Your task to perform on an android device: see creations saved in the google photos Image 0: 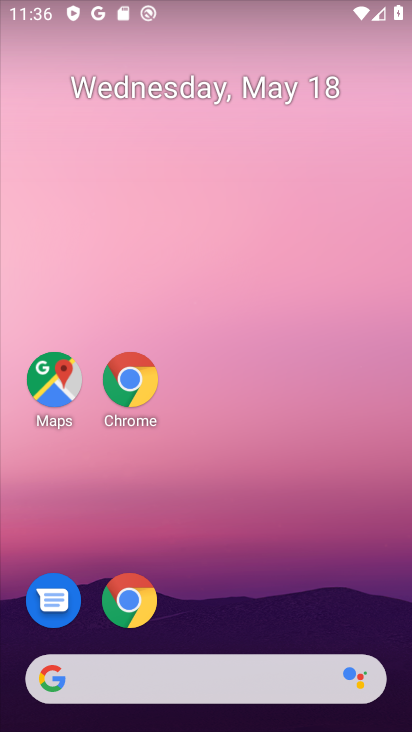
Step 0: drag from (324, 607) to (146, 115)
Your task to perform on an android device: see creations saved in the google photos Image 1: 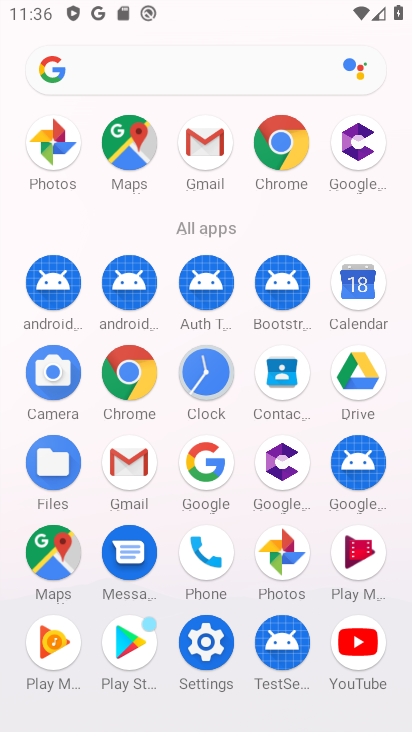
Step 1: click (284, 563)
Your task to perform on an android device: see creations saved in the google photos Image 2: 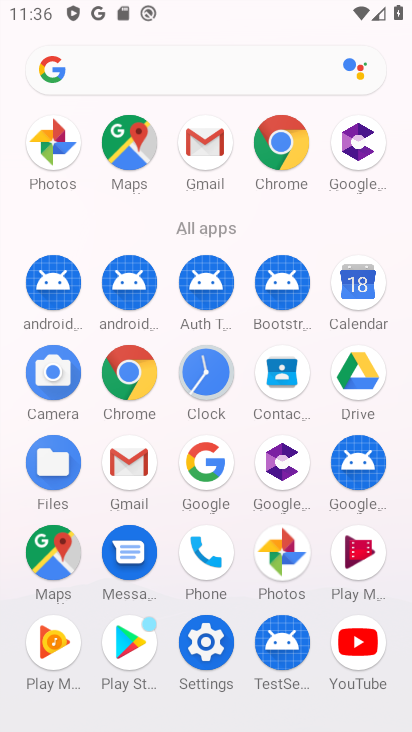
Step 2: click (284, 563)
Your task to perform on an android device: see creations saved in the google photos Image 3: 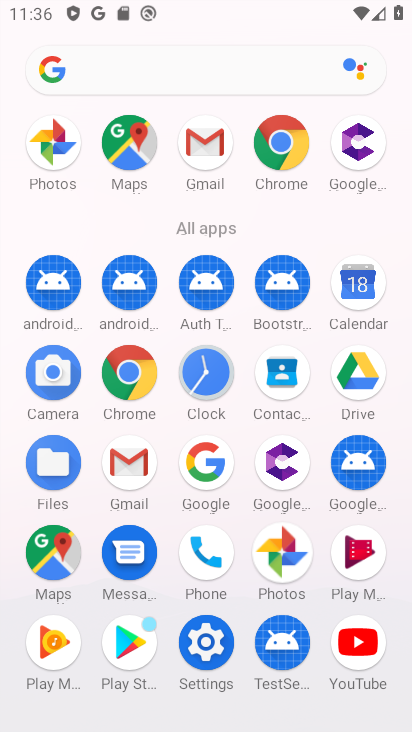
Step 3: click (285, 562)
Your task to perform on an android device: see creations saved in the google photos Image 4: 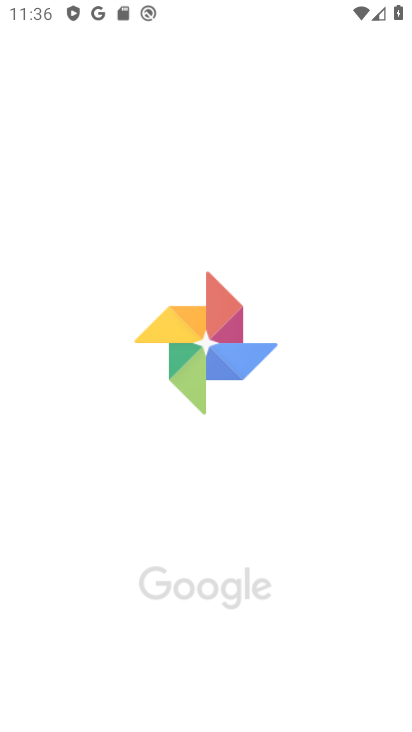
Step 4: click (284, 560)
Your task to perform on an android device: see creations saved in the google photos Image 5: 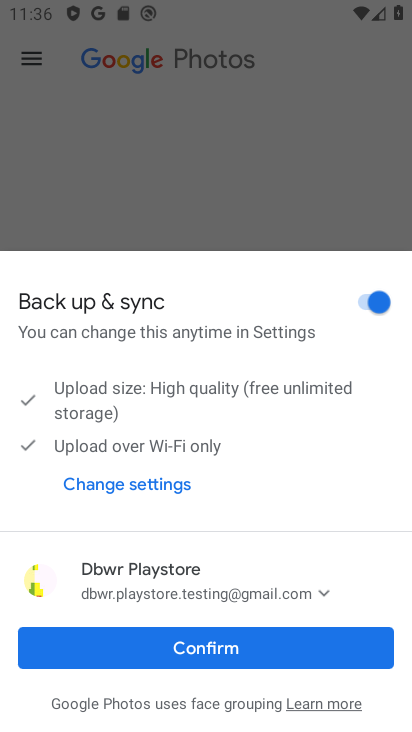
Step 5: click (215, 649)
Your task to perform on an android device: see creations saved in the google photos Image 6: 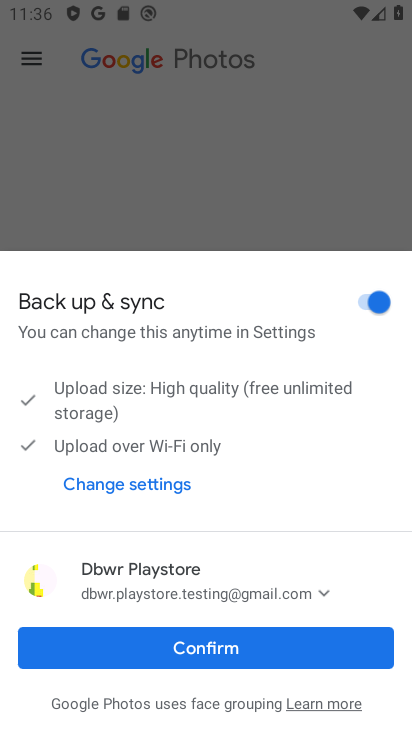
Step 6: click (215, 649)
Your task to perform on an android device: see creations saved in the google photos Image 7: 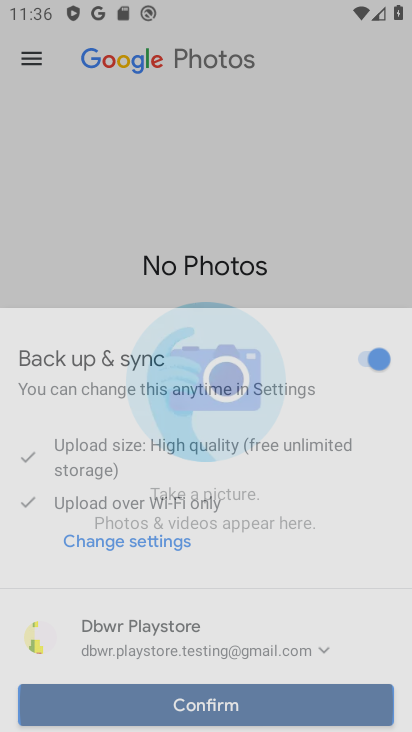
Step 7: click (218, 649)
Your task to perform on an android device: see creations saved in the google photos Image 8: 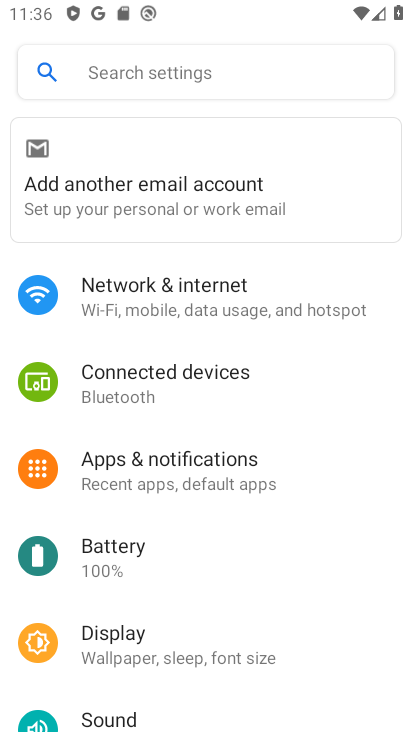
Step 8: drag from (177, 568) to (145, 367)
Your task to perform on an android device: see creations saved in the google photos Image 9: 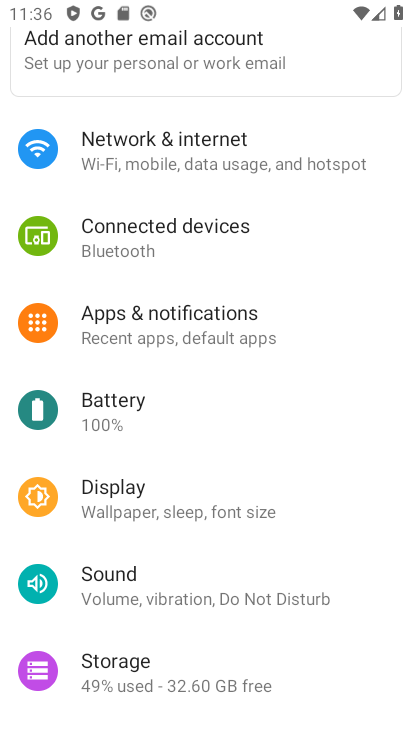
Step 9: drag from (187, 583) to (193, 275)
Your task to perform on an android device: see creations saved in the google photos Image 10: 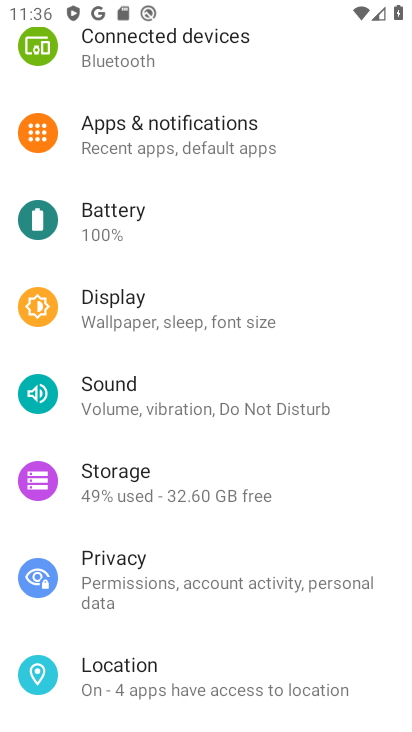
Step 10: press home button
Your task to perform on an android device: see creations saved in the google photos Image 11: 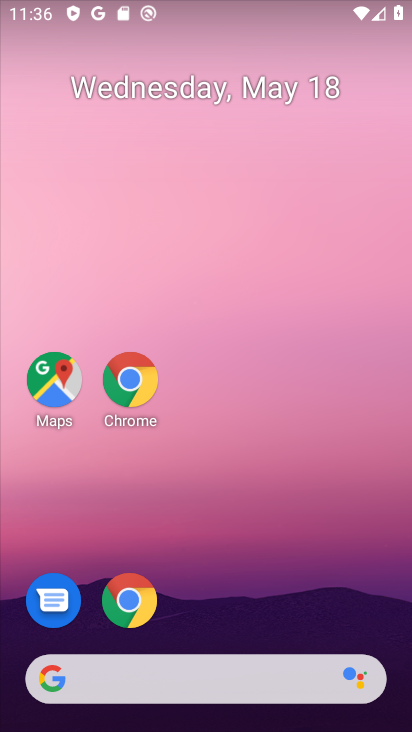
Step 11: drag from (267, 642) to (223, 133)
Your task to perform on an android device: see creations saved in the google photos Image 12: 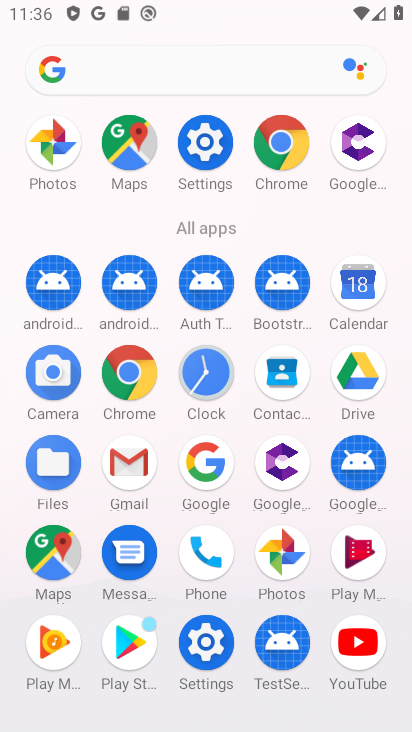
Step 12: click (282, 550)
Your task to perform on an android device: see creations saved in the google photos Image 13: 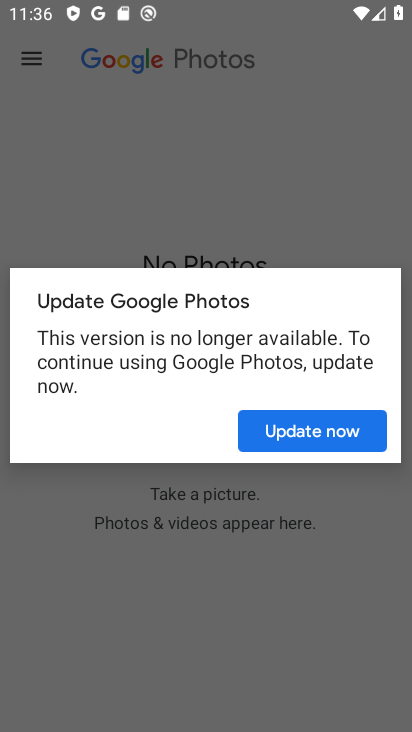
Step 13: click (319, 433)
Your task to perform on an android device: see creations saved in the google photos Image 14: 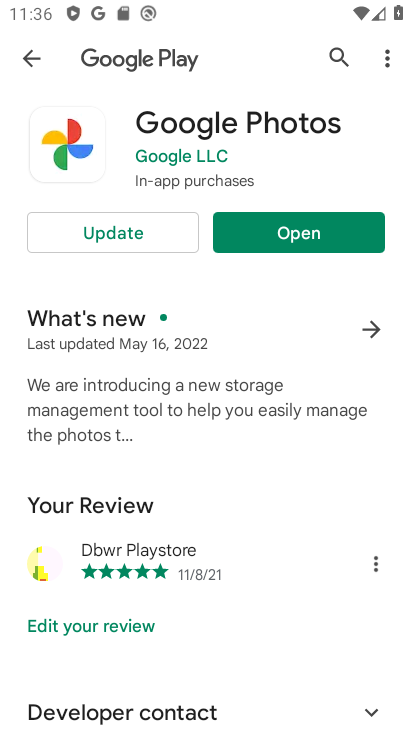
Step 14: click (122, 233)
Your task to perform on an android device: see creations saved in the google photos Image 15: 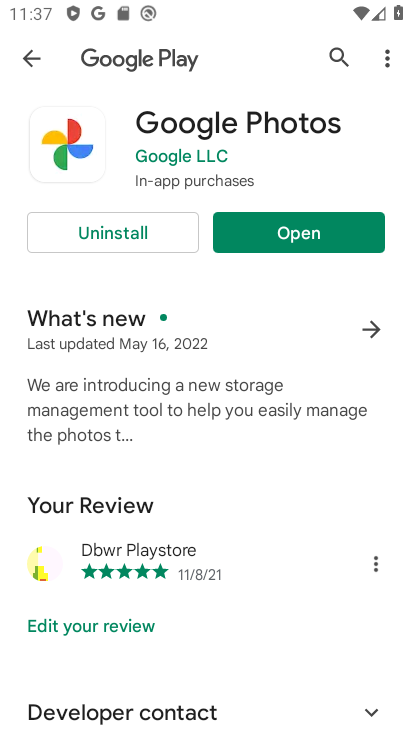
Step 15: click (298, 227)
Your task to perform on an android device: see creations saved in the google photos Image 16: 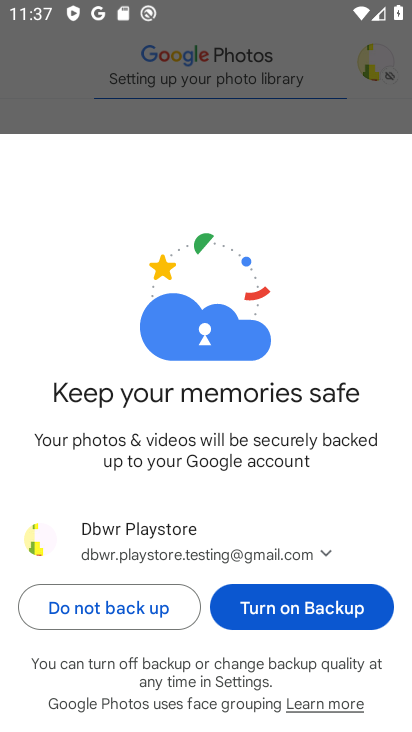
Step 16: click (297, 597)
Your task to perform on an android device: see creations saved in the google photos Image 17: 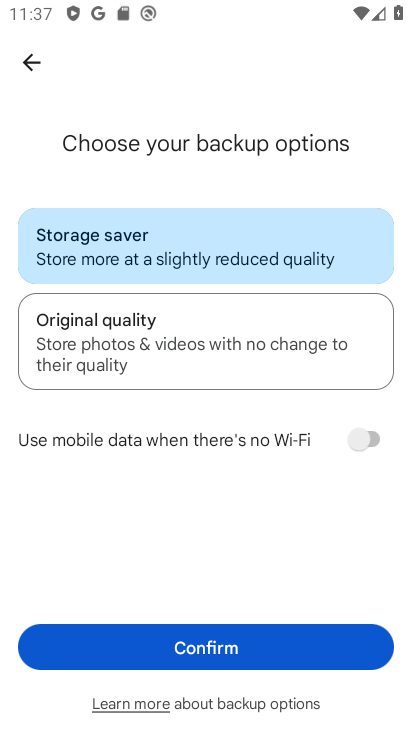
Step 17: click (236, 641)
Your task to perform on an android device: see creations saved in the google photos Image 18: 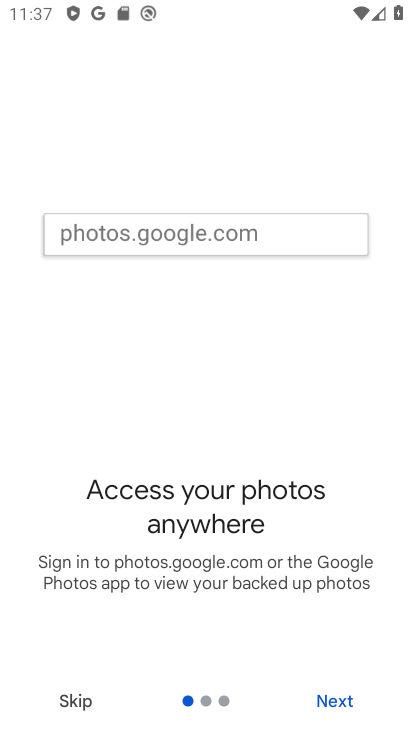
Step 18: click (335, 694)
Your task to perform on an android device: see creations saved in the google photos Image 19: 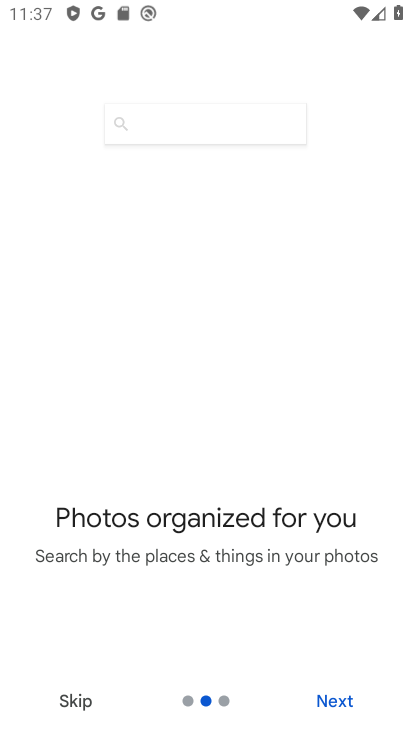
Step 19: click (336, 696)
Your task to perform on an android device: see creations saved in the google photos Image 20: 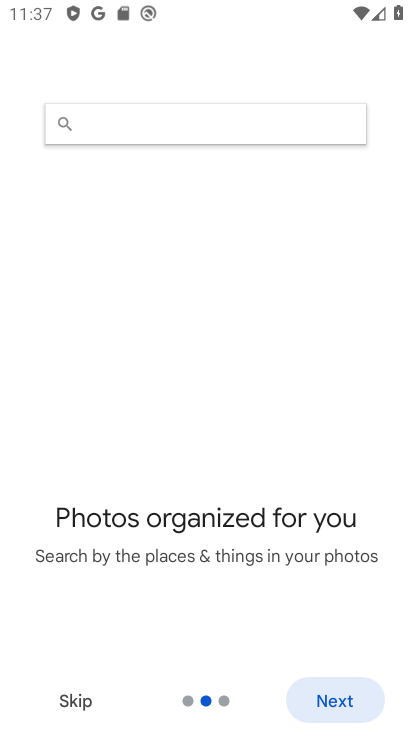
Step 20: click (337, 696)
Your task to perform on an android device: see creations saved in the google photos Image 21: 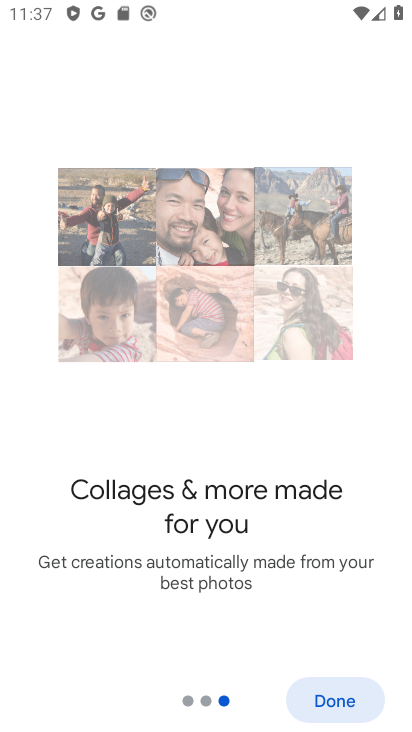
Step 21: click (335, 695)
Your task to perform on an android device: see creations saved in the google photos Image 22: 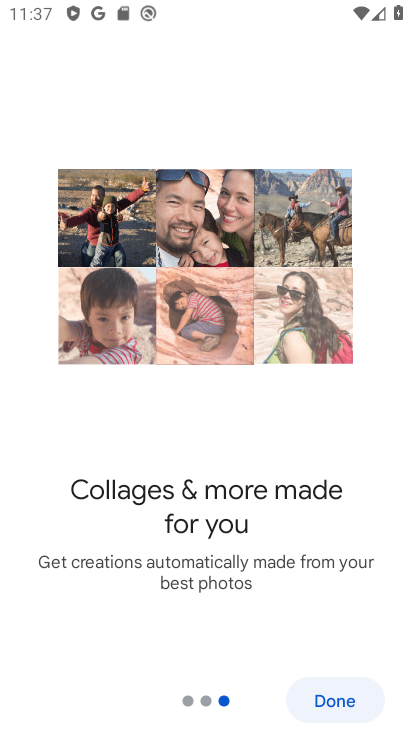
Step 22: click (335, 695)
Your task to perform on an android device: see creations saved in the google photos Image 23: 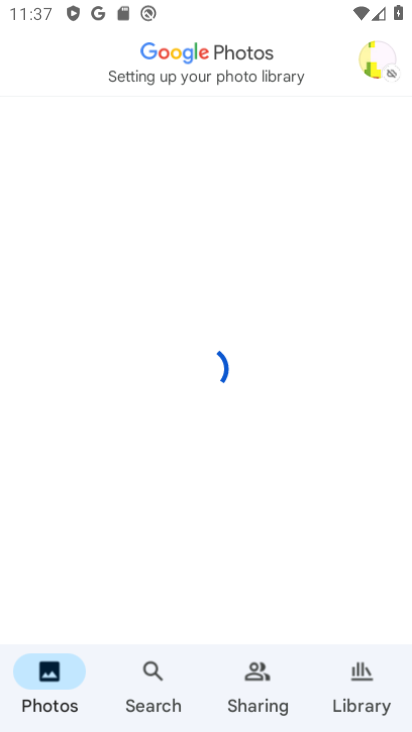
Step 23: click (335, 695)
Your task to perform on an android device: see creations saved in the google photos Image 24: 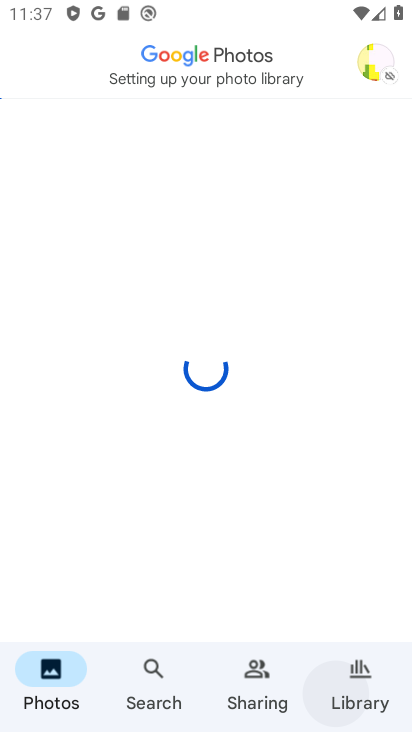
Step 24: click (335, 695)
Your task to perform on an android device: see creations saved in the google photos Image 25: 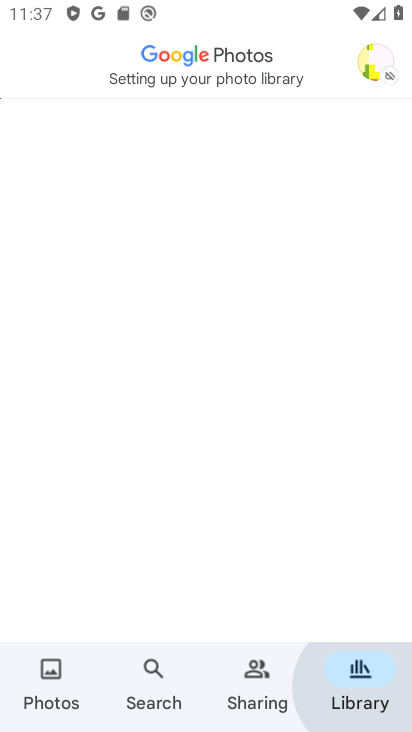
Step 25: click (334, 694)
Your task to perform on an android device: see creations saved in the google photos Image 26: 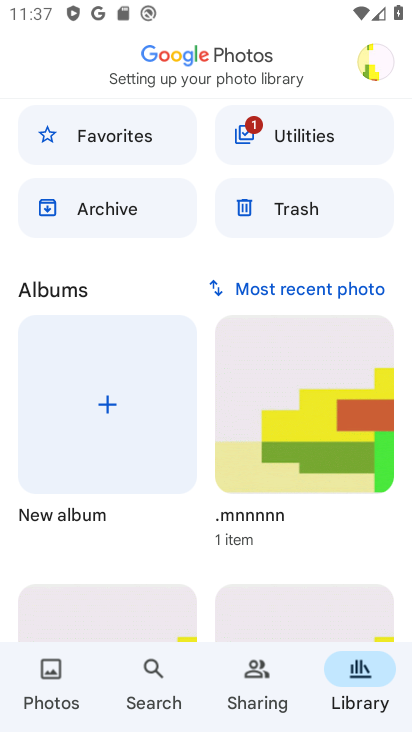
Step 26: drag from (292, 523) to (275, 443)
Your task to perform on an android device: see creations saved in the google photos Image 27: 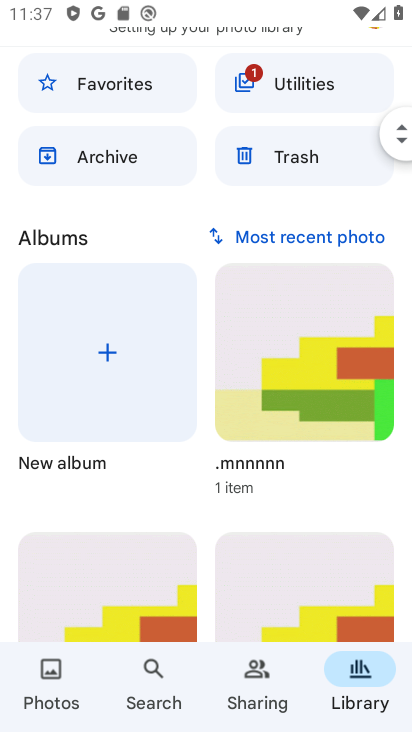
Step 27: drag from (277, 436) to (301, 386)
Your task to perform on an android device: see creations saved in the google photos Image 28: 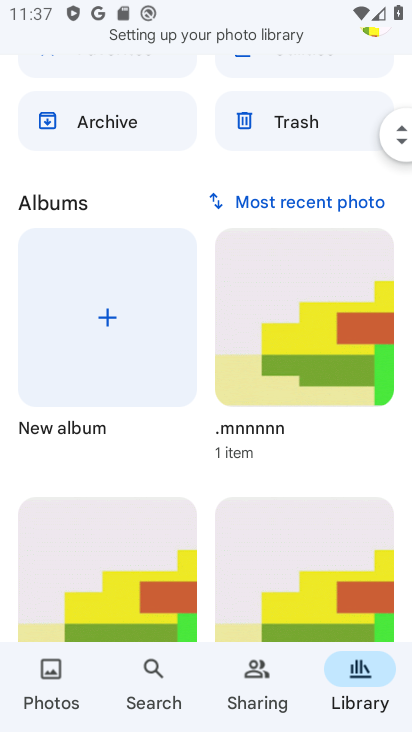
Step 28: click (304, 379)
Your task to perform on an android device: see creations saved in the google photos Image 29: 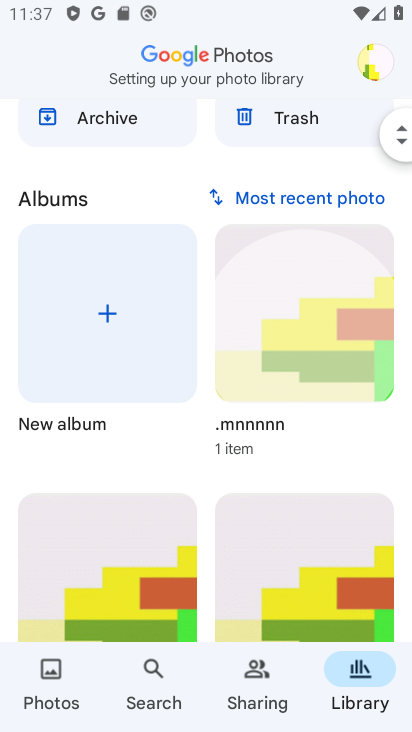
Step 29: click (304, 379)
Your task to perform on an android device: see creations saved in the google photos Image 30: 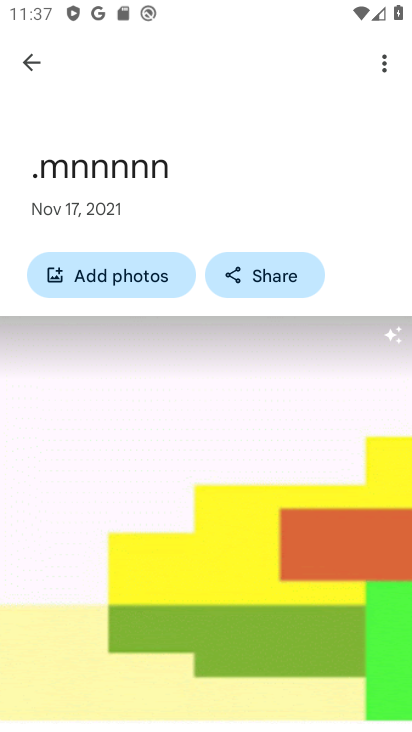
Step 30: drag from (261, 575) to (212, 271)
Your task to perform on an android device: see creations saved in the google photos Image 31: 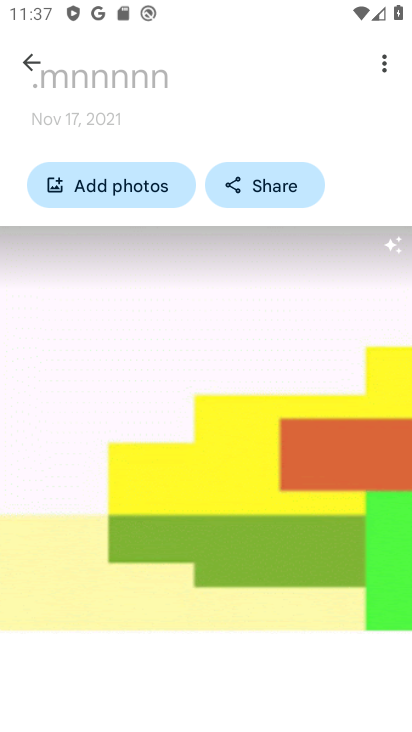
Step 31: drag from (242, 468) to (234, 214)
Your task to perform on an android device: see creations saved in the google photos Image 32: 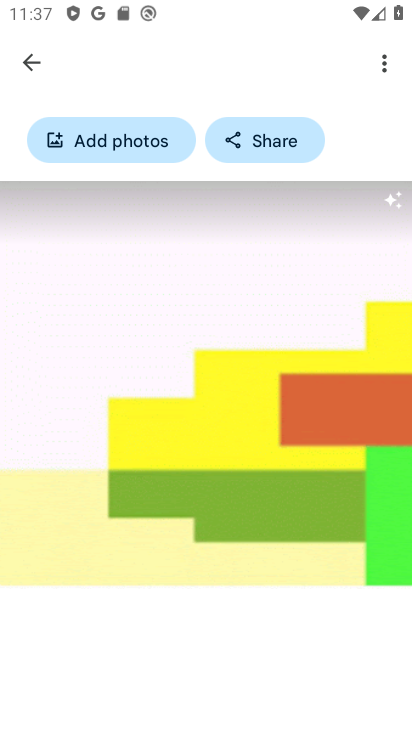
Step 32: click (261, 203)
Your task to perform on an android device: see creations saved in the google photos Image 33: 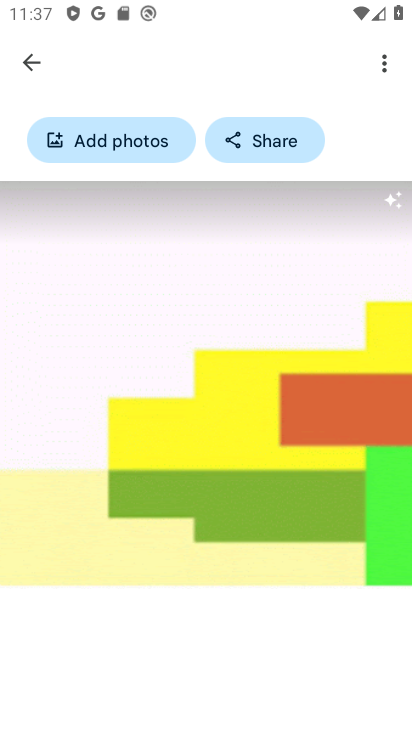
Step 33: task complete